Your task to perform on an android device: turn off translation in the chrome app Image 0: 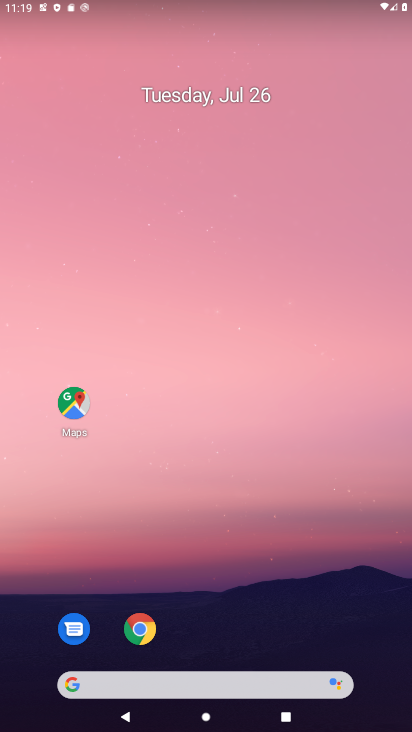
Step 0: click (127, 631)
Your task to perform on an android device: turn off translation in the chrome app Image 1: 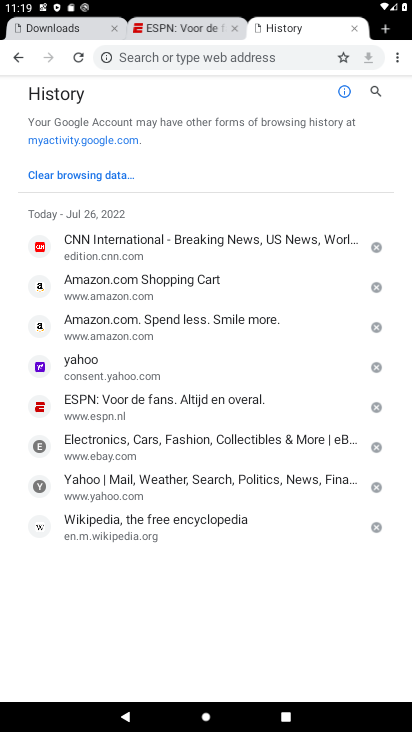
Step 1: click (397, 67)
Your task to perform on an android device: turn off translation in the chrome app Image 2: 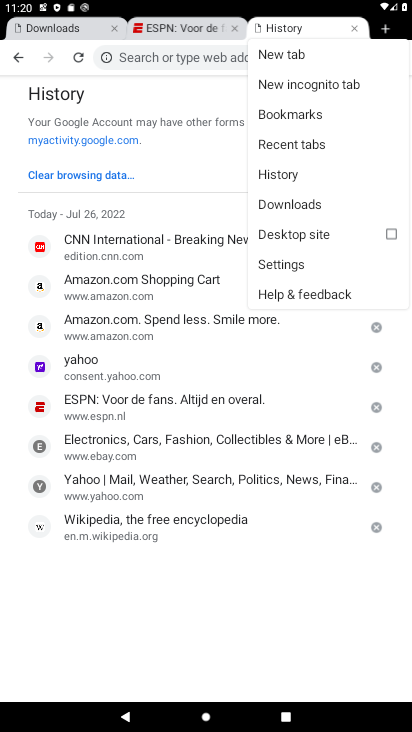
Step 2: click (292, 271)
Your task to perform on an android device: turn off translation in the chrome app Image 3: 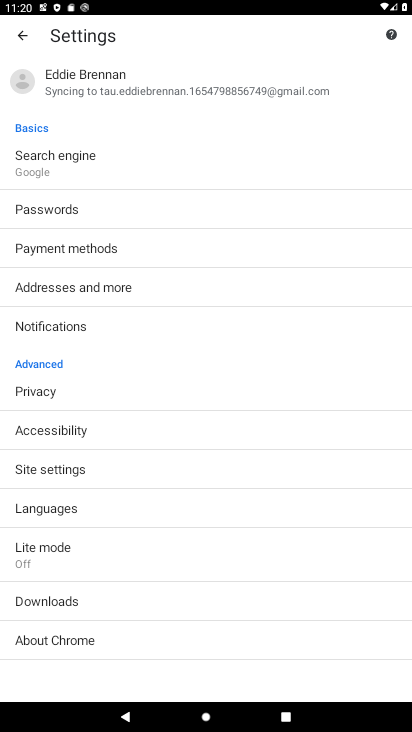
Step 3: click (178, 464)
Your task to perform on an android device: turn off translation in the chrome app Image 4: 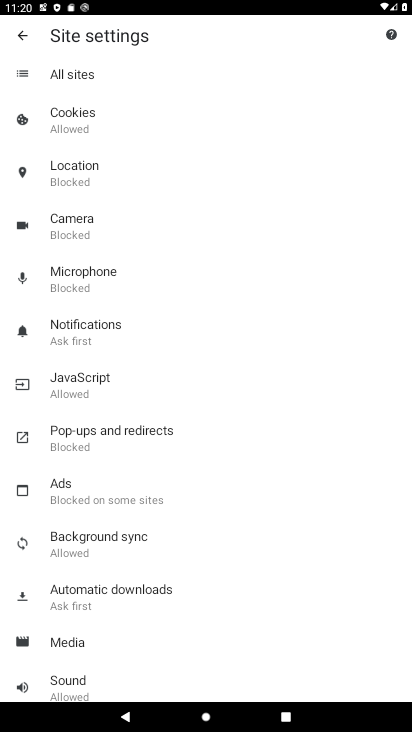
Step 4: task complete